Your task to perform on an android device: View the shopping cart on walmart. Search for apple airpods on walmart, select the first entry, and add it to the cart. Image 0: 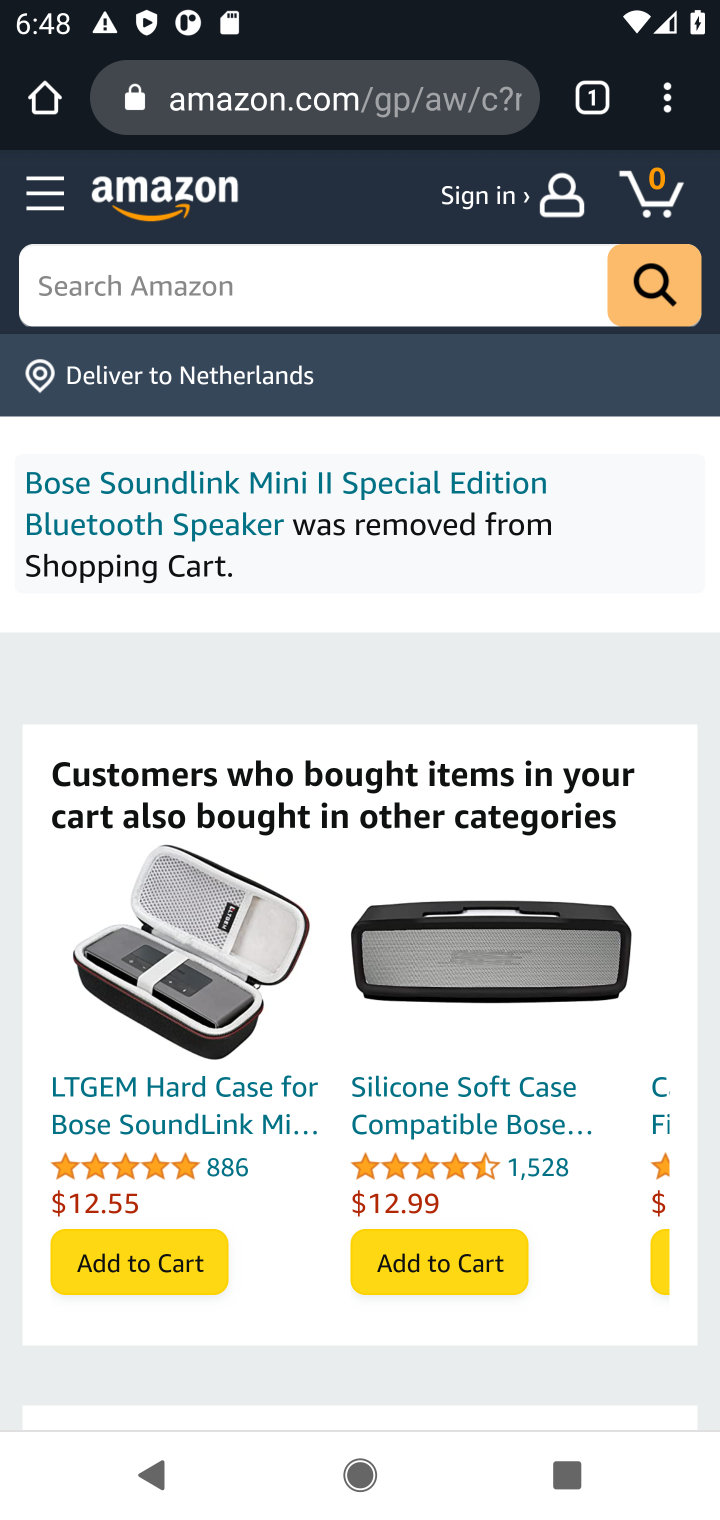
Step 0: click (235, 118)
Your task to perform on an android device: View the shopping cart on walmart. Search for apple airpods on walmart, select the first entry, and add it to the cart. Image 1: 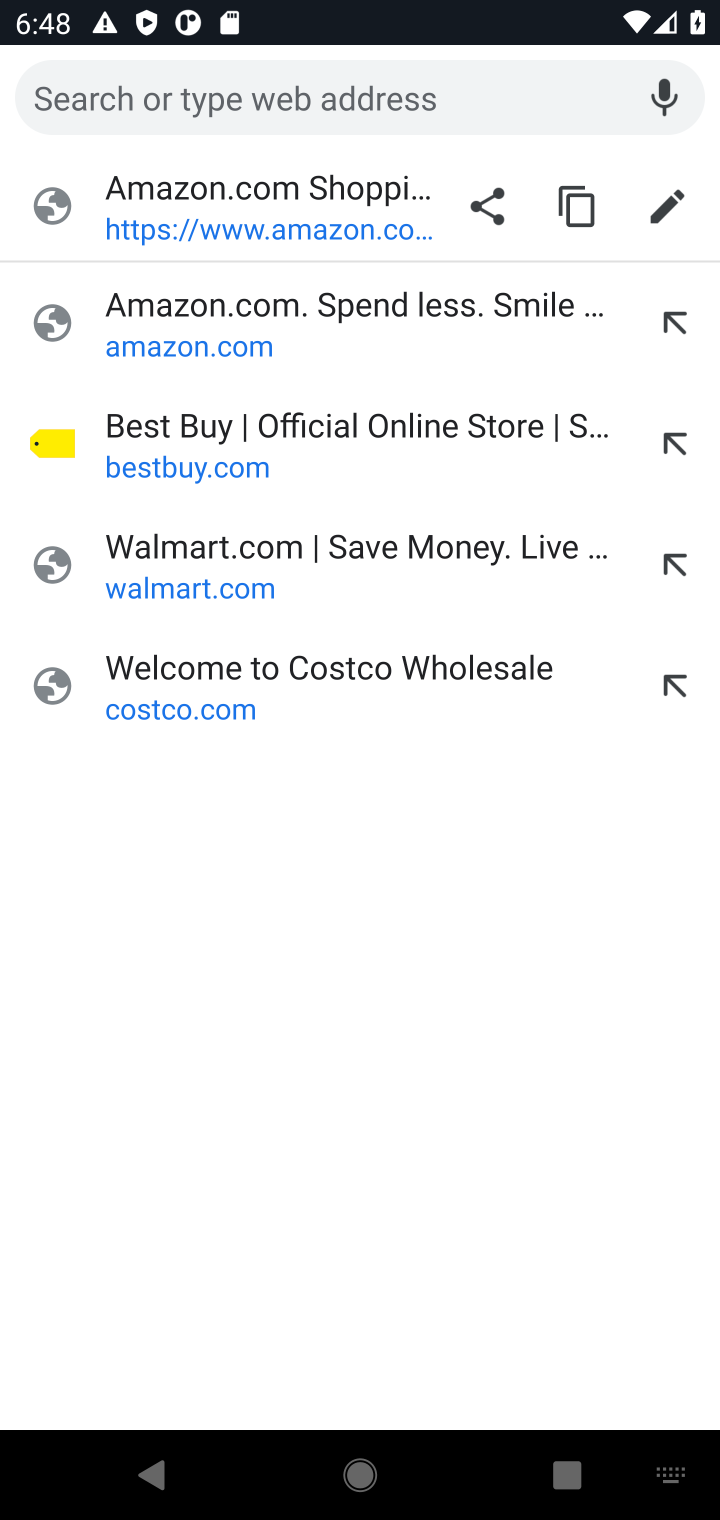
Step 1: click (159, 542)
Your task to perform on an android device: View the shopping cart on walmart. Search for apple airpods on walmart, select the first entry, and add it to the cart. Image 2: 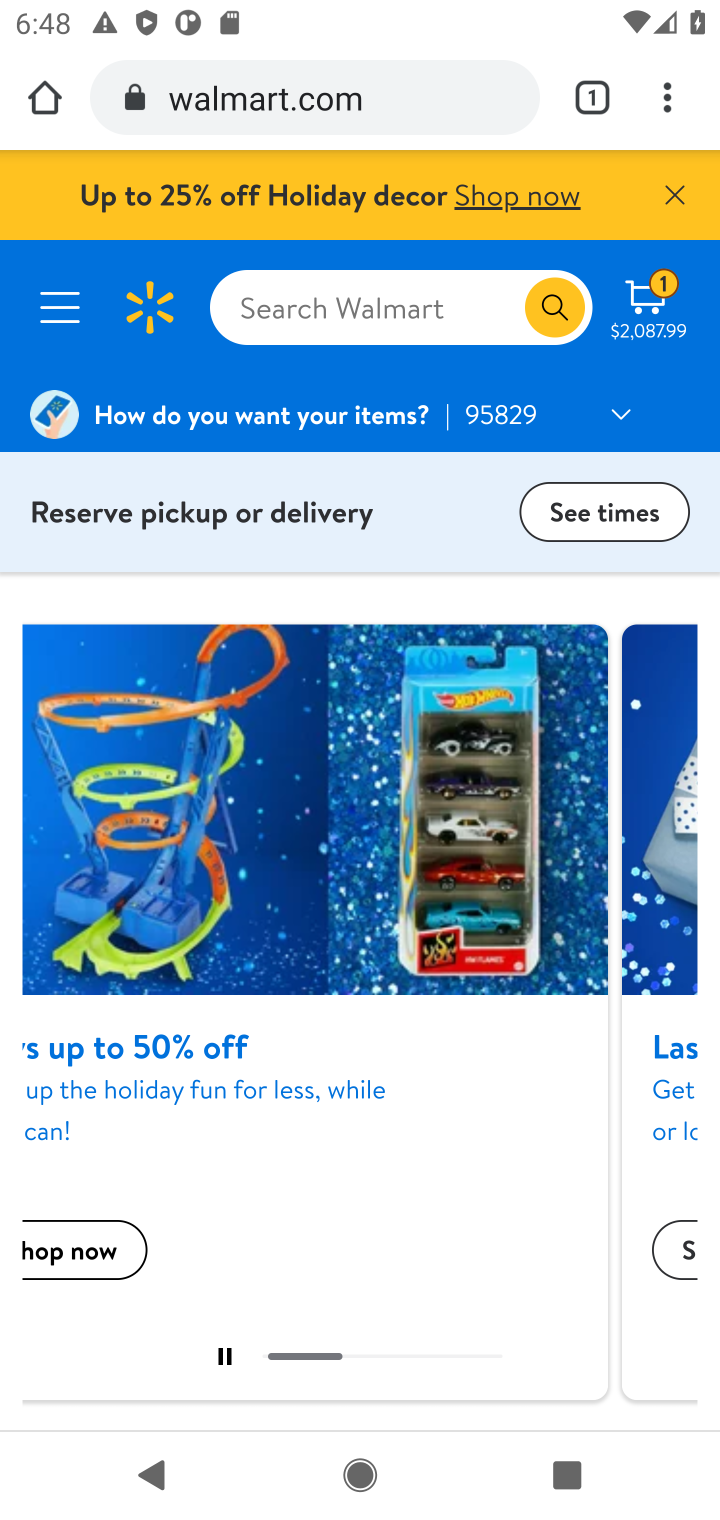
Step 2: click (657, 315)
Your task to perform on an android device: View the shopping cart on walmart. Search for apple airpods on walmart, select the first entry, and add it to the cart. Image 3: 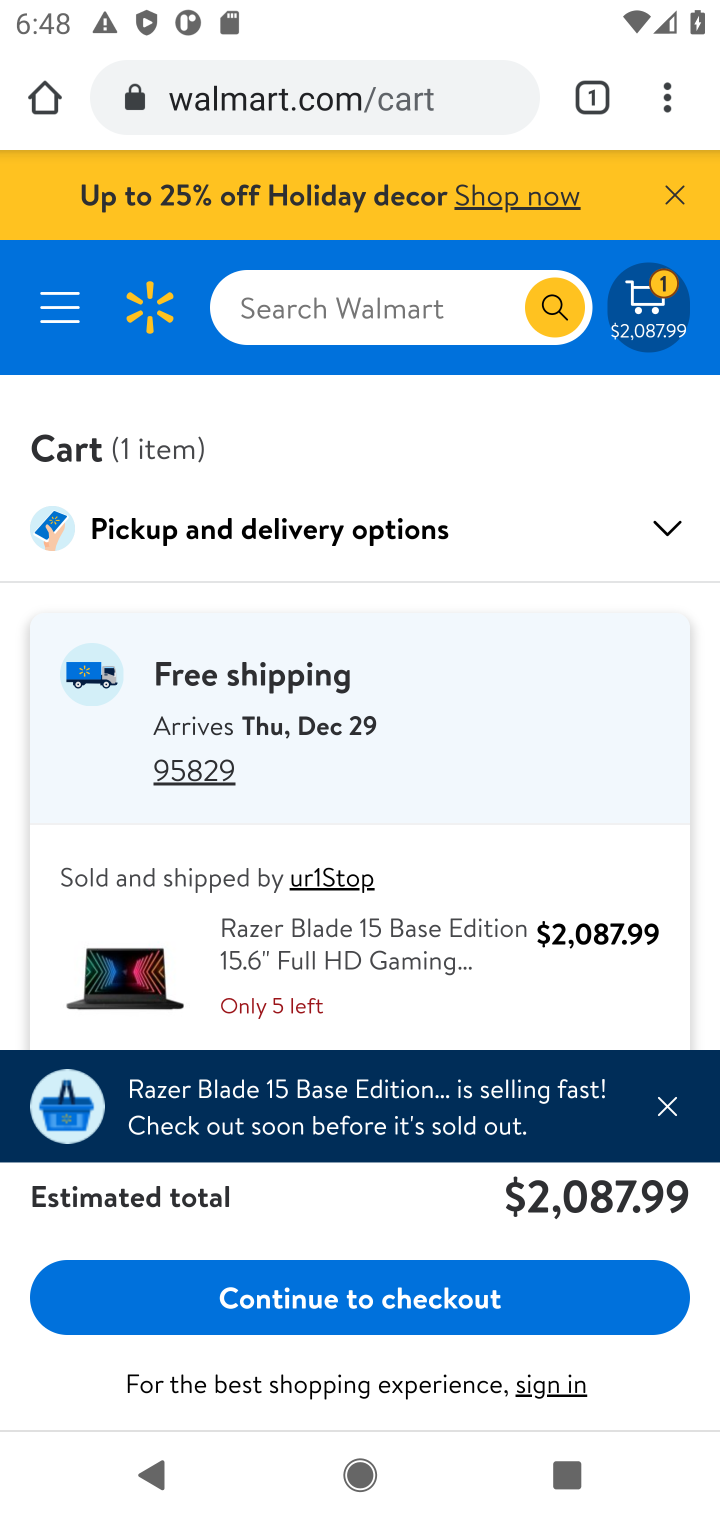
Step 3: click (294, 332)
Your task to perform on an android device: View the shopping cart on walmart. Search for apple airpods on walmart, select the first entry, and add it to the cart. Image 4: 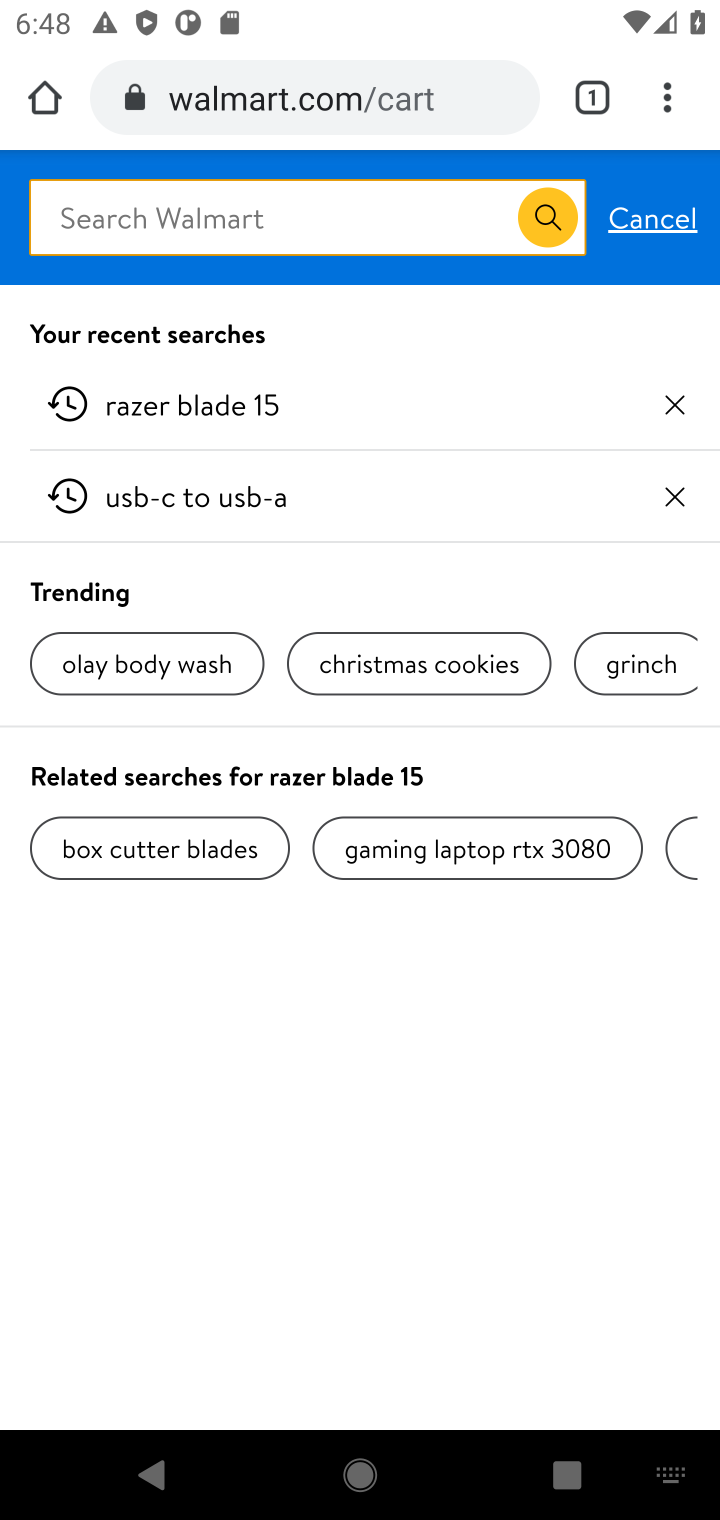
Step 4: type "apple airpods"
Your task to perform on an android device: View the shopping cart on walmart. Search for apple airpods on walmart, select the first entry, and add it to the cart. Image 5: 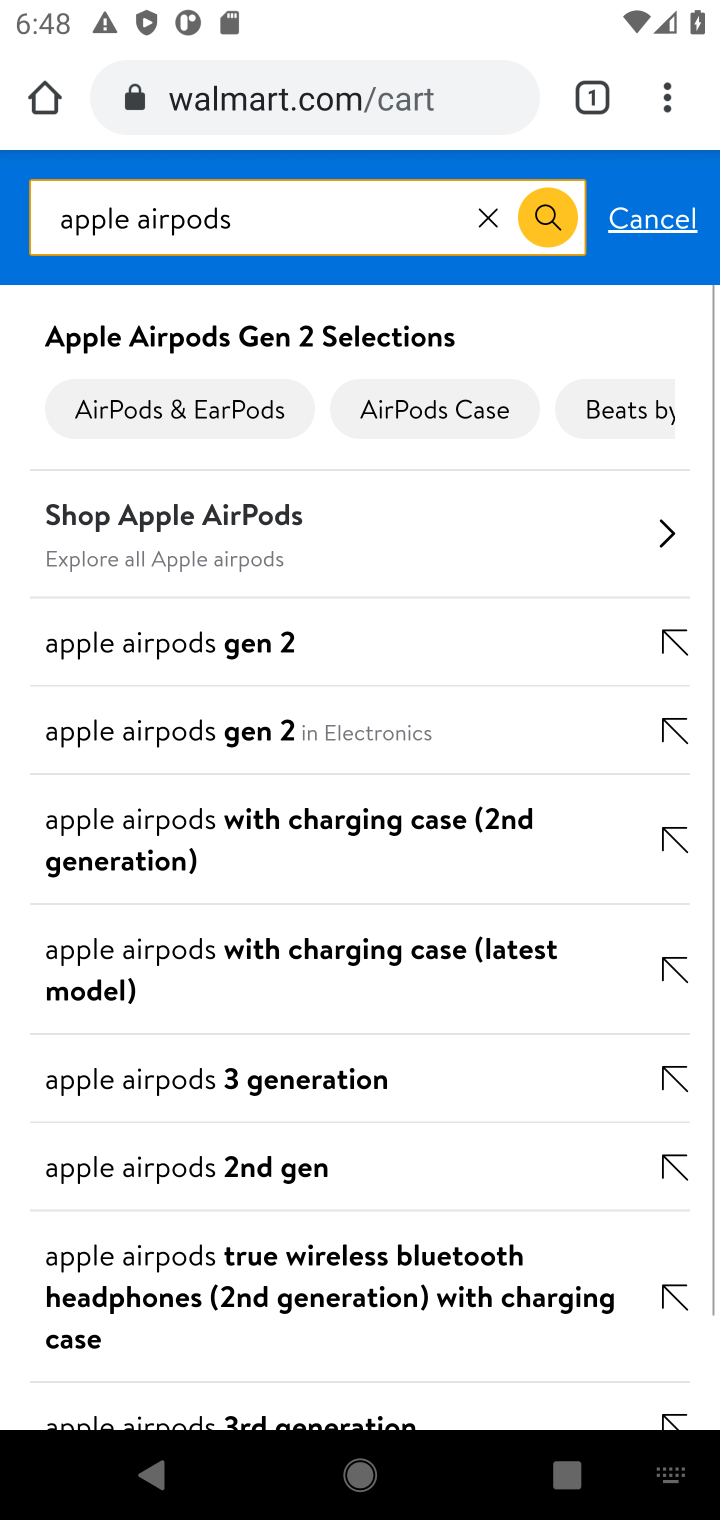
Step 5: click (555, 222)
Your task to perform on an android device: View the shopping cart on walmart. Search for apple airpods on walmart, select the first entry, and add it to the cart. Image 6: 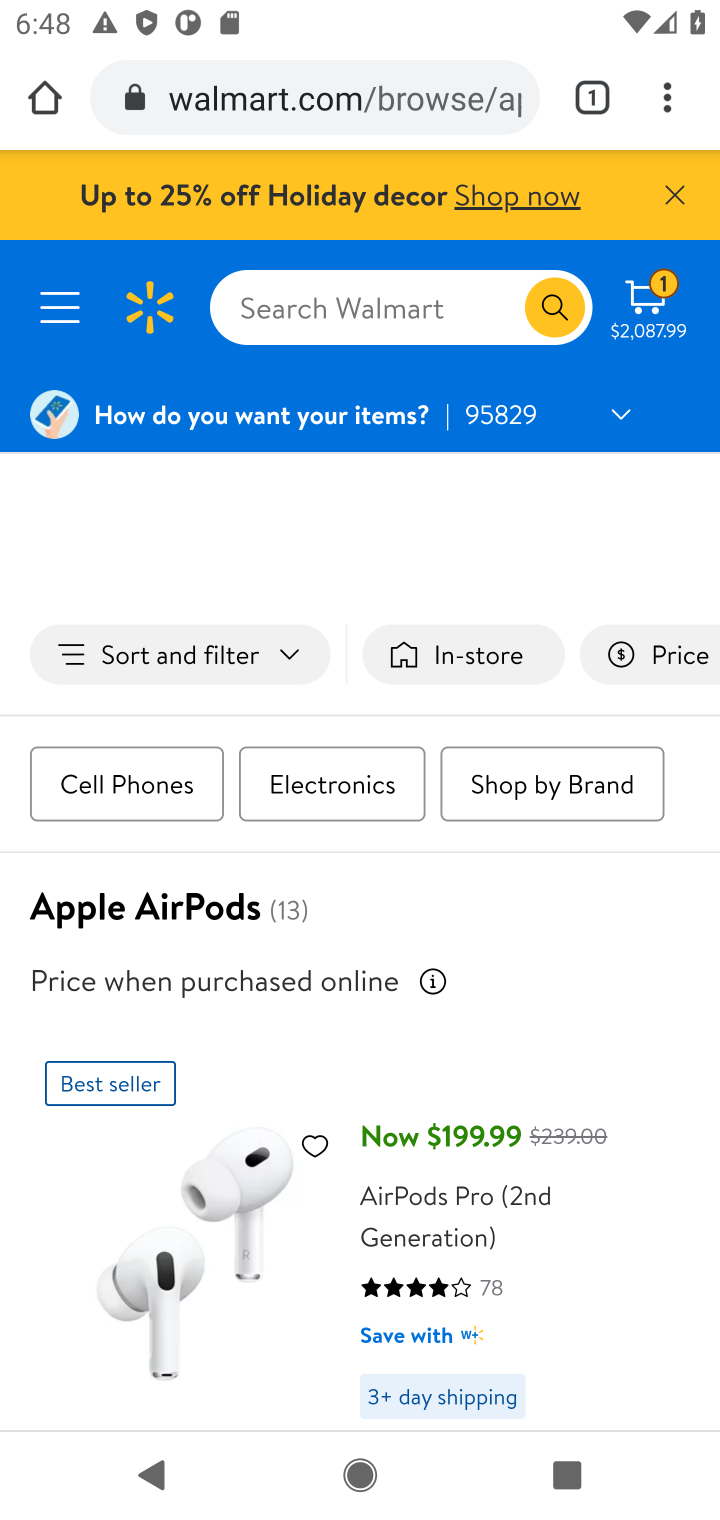
Step 6: drag from (407, 1220) to (403, 731)
Your task to perform on an android device: View the shopping cart on walmart. Search for apple airpods on walmart, select the first entry, and add it to the cart. Image 7: 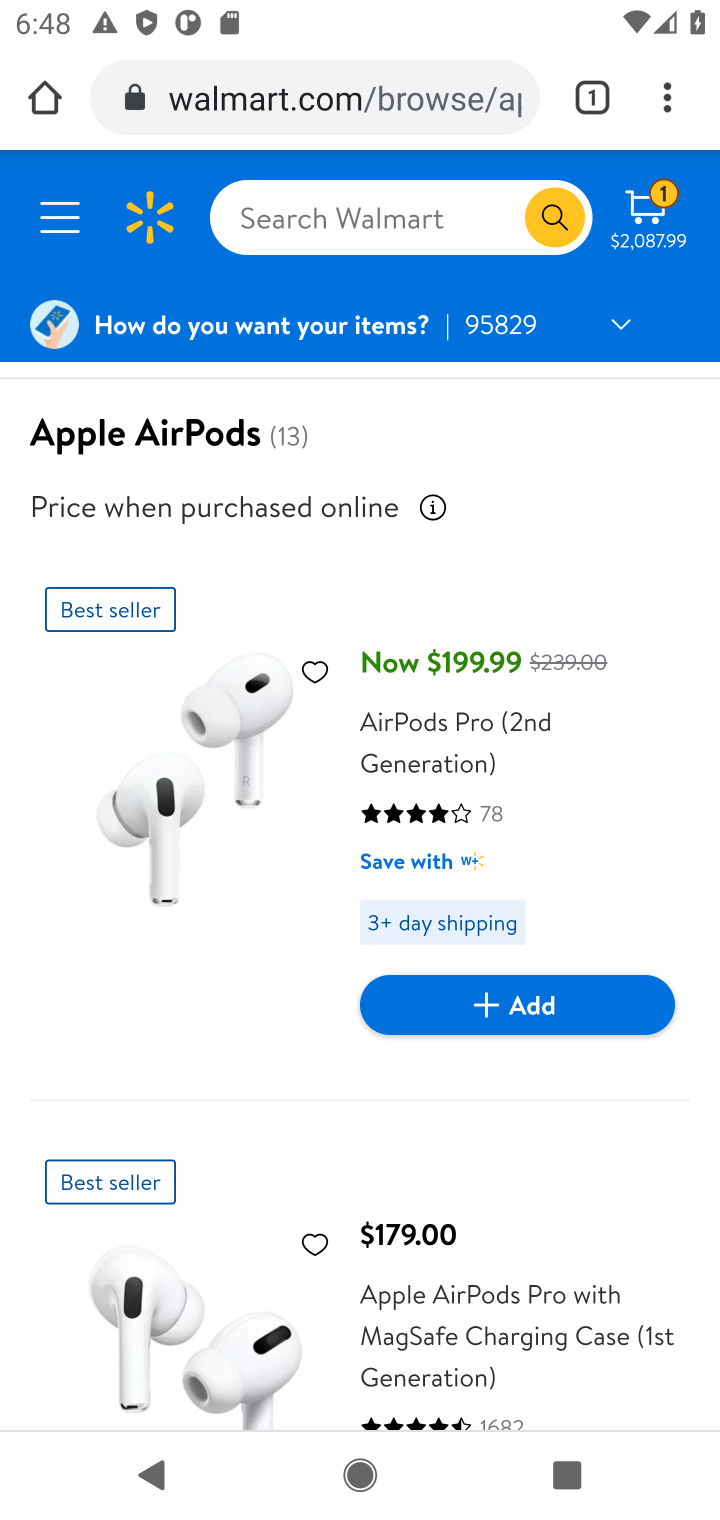
Step 7: click (415, 735)
Your task to perform on an android device: View the shopping cart on walmart. Search for apple airpods on walmart, select the first entry, and add it to the cart. Image 8: 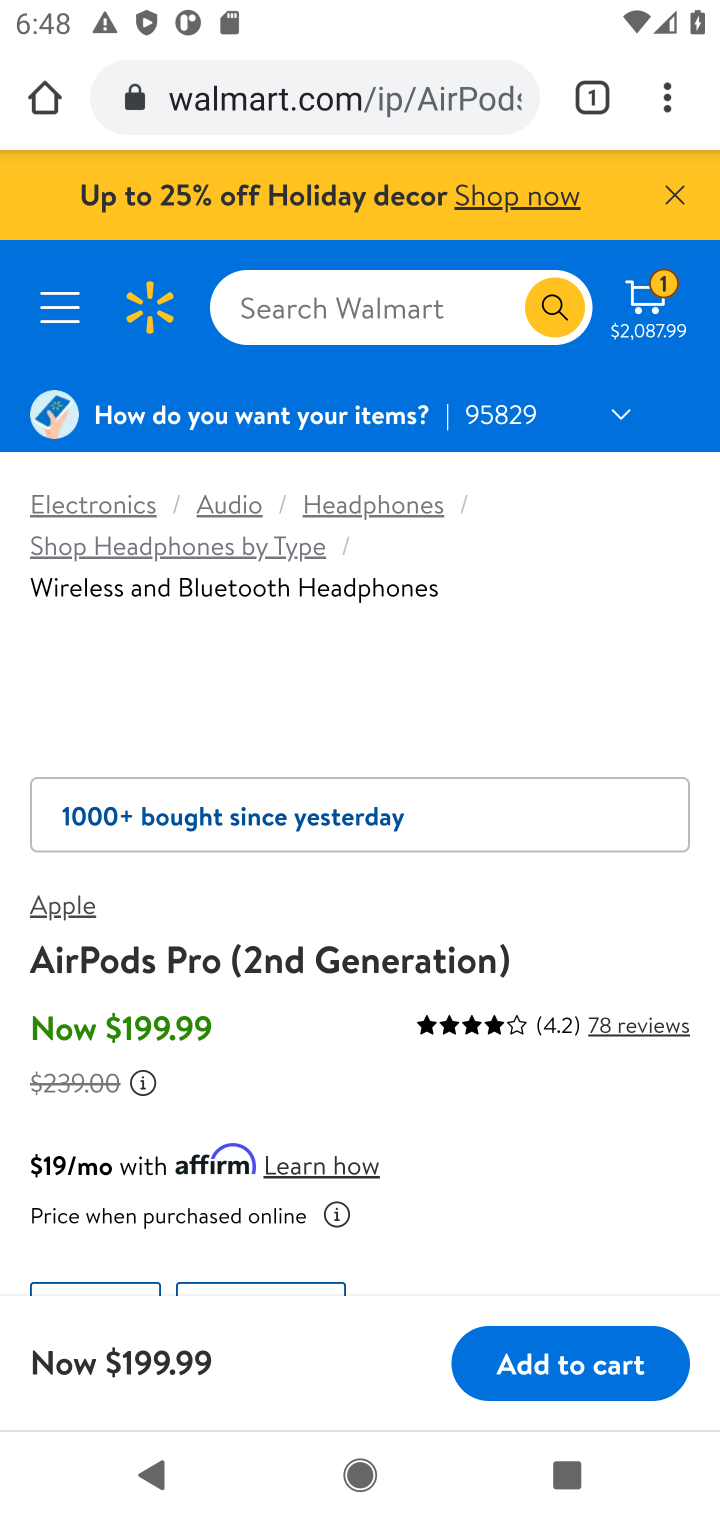
Step 8: click (561, 1379)
Your task to perform on an android device: View the shopping cart on walmart. Search for apple airpods on walmart, select the first entry, and add it to the cart. Image 9: 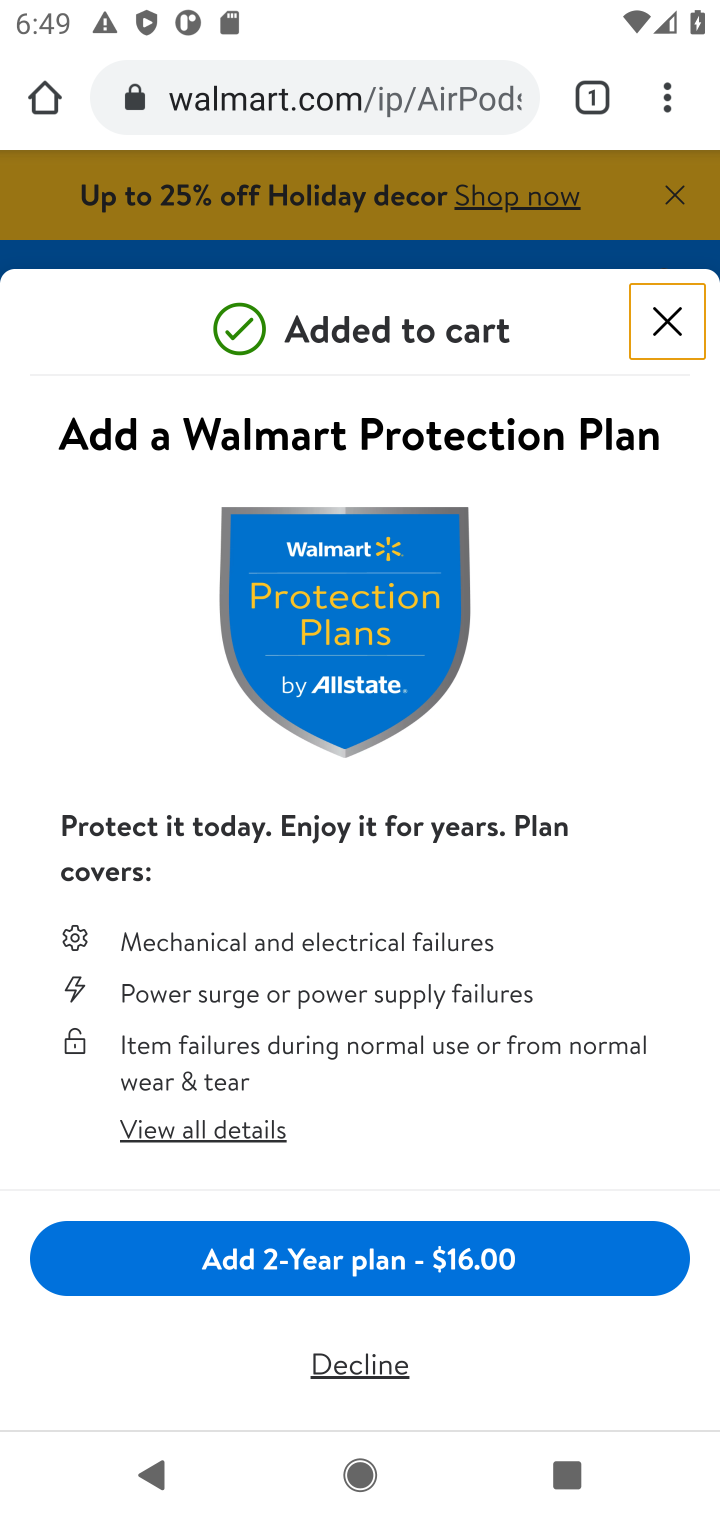
Step 9: task complete